Your task to perform on an android device: Go to network settings Image 0: 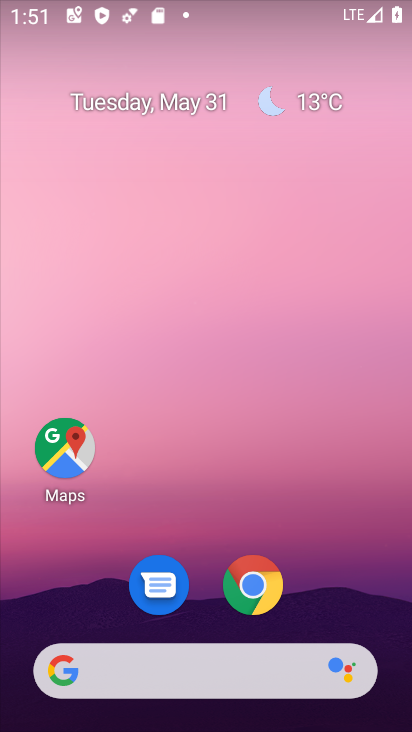
Step 0: drag from (230, 511) to (188, 21)
Your task to perform on an android device: Go to network settings Image 1: 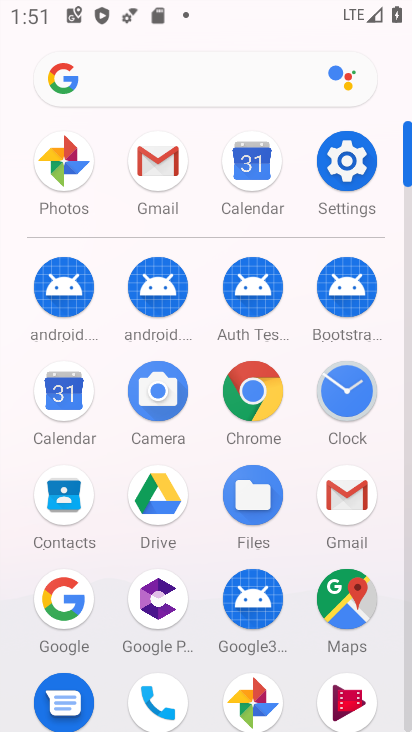
Step 1: click (342, 164)
Your task to perform on an android device: Go to network settings Image 2: 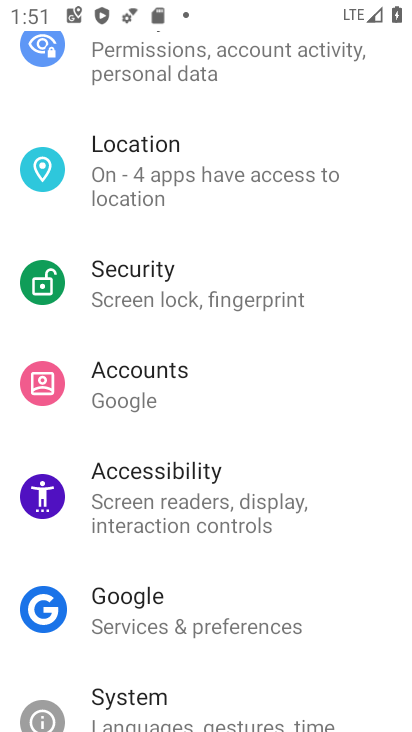
Step 2: drag from (291, 218) to (333, 578)
Your task to perform on an android device: Go to network settings Image 3: 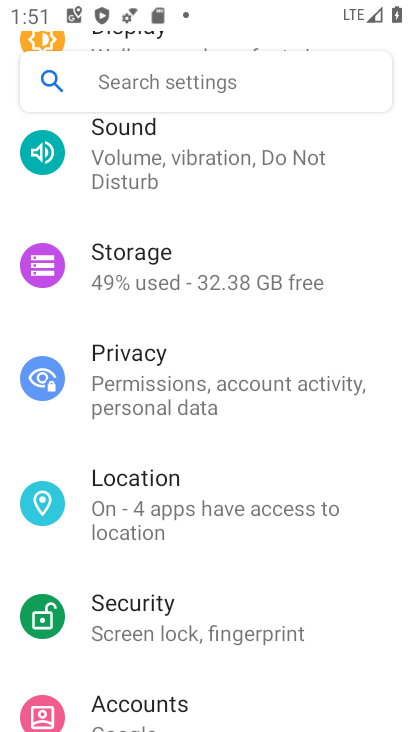
Step 3: drag from (229, 233) to (212, 588)
Your task to perform on an android device: Go to network settings Image 4: 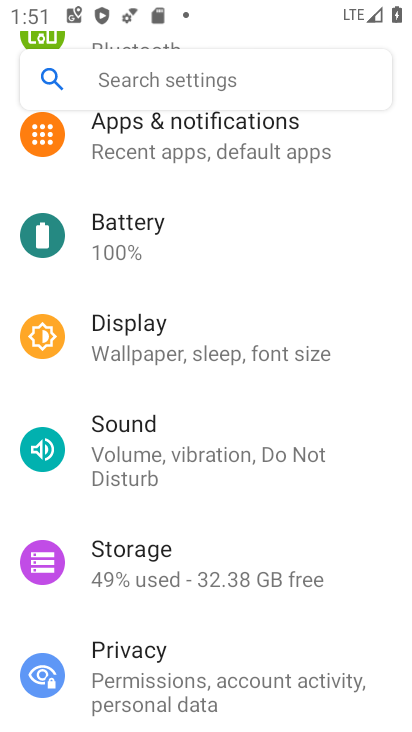
Step 4: drag from (201, 232) to (199, 500)
Your task to perform on an android device: Go to network settings Image 5: 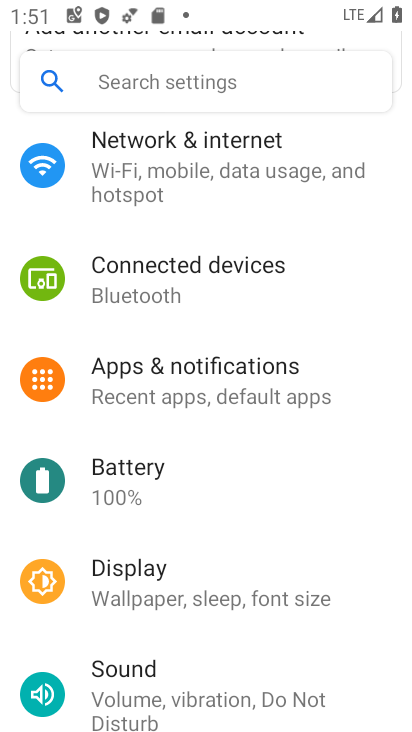
Step 5: click (217, 148)
Your task to perform on an android device: Go to network settings Image 6: 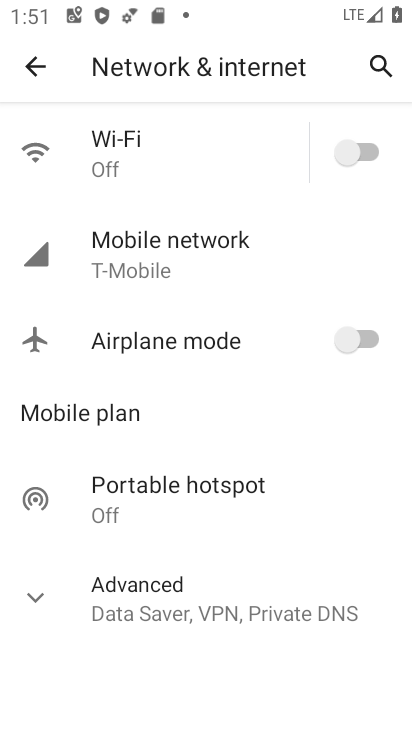
Step 6: task complete